Your task to perform on an android device: Open the phone app and click the voicemail tab. Image 0: 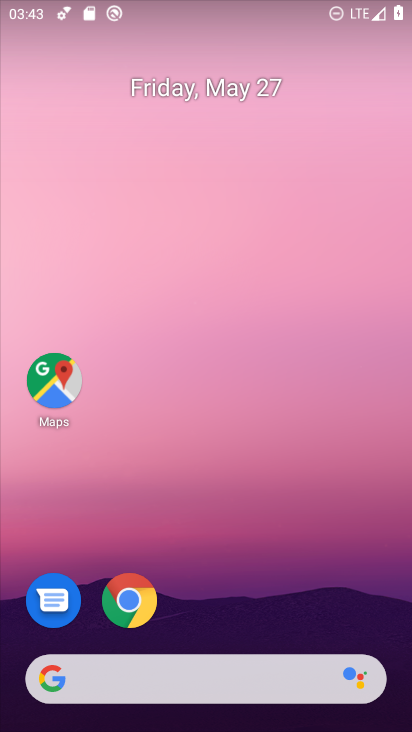
Step 0: drag from (217, 717) to (196, 58)
Your task to perform on an android device: Open the phone app and click the voicemail tab. Image 1: 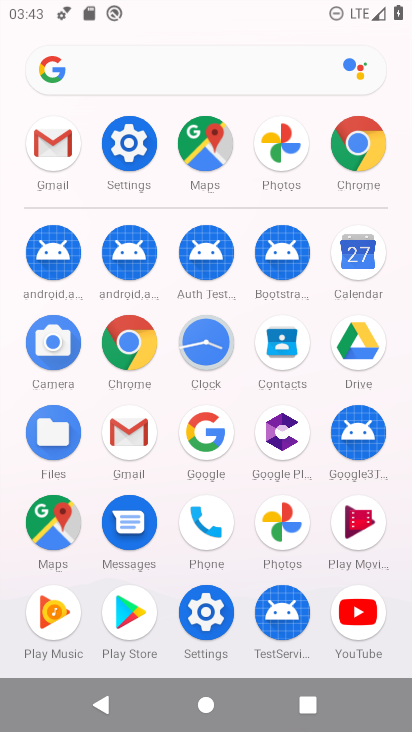
Step 1: click (212, 517)
Your task to perform on an android device: Open the phone app and click the voicemail tab. Image 2: 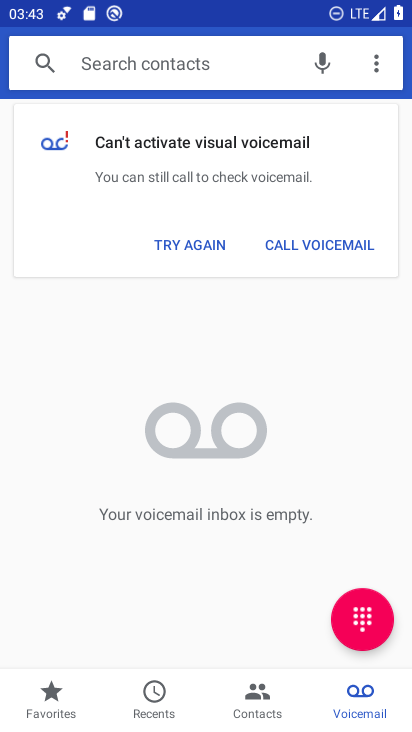
Step 2: task complete